Your task to perform on an android device: delete browsing data in the chrome app Image 0: 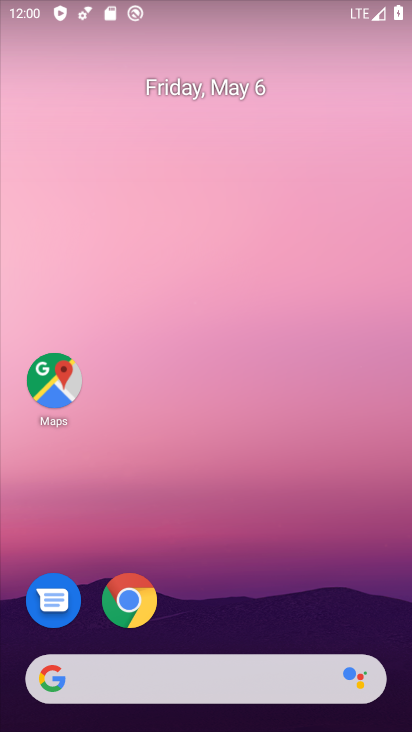
Step 0: drag from (298, 615) to (311, 280)
Your task to perform on an android device: delete browsing data in the chrome app Image 1: 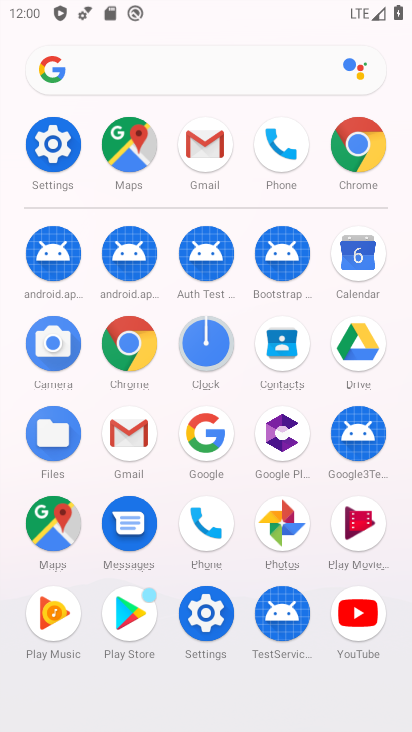
Step 1: click (374, 163)
Your task to perform on an android device: delete browsing data in the chrome app Image 2: 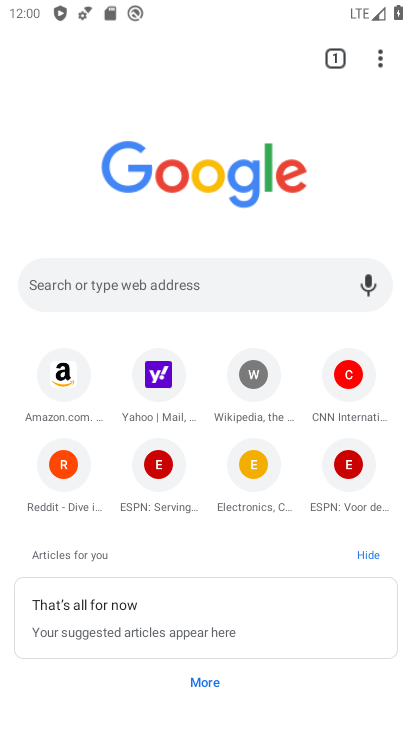
Step 2: click (381, 54)
Your task to perform on an android device: delete browsing data in the chrome app Image 3: 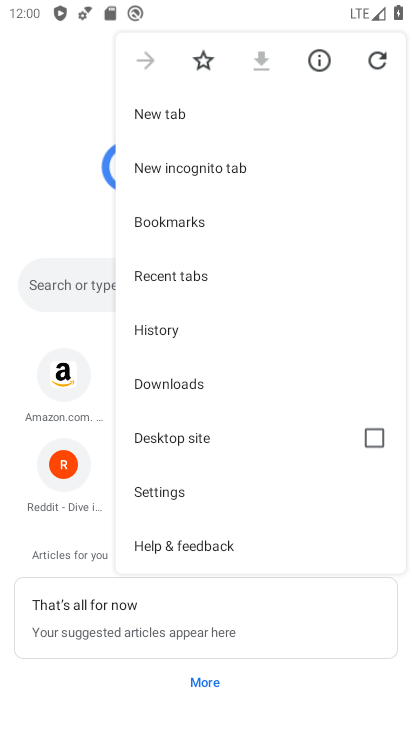
Step 3: click (157, 335)
Your task to perform on an android device: delete browsing data in the chrome app Image 4: 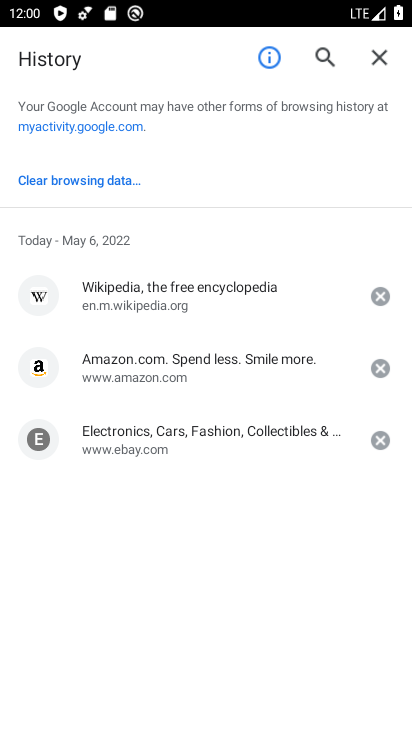
Step 4: click (54, 188)
Your task to perform on an android device: delete browsing data in the chrome app Image 5: 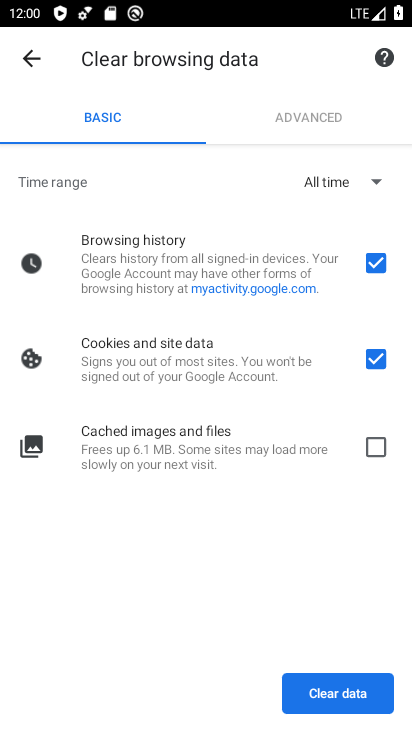
Step 5: click (347, 697)
Your task to perform on an android device: delete browsing data in the chrome app Image 6: 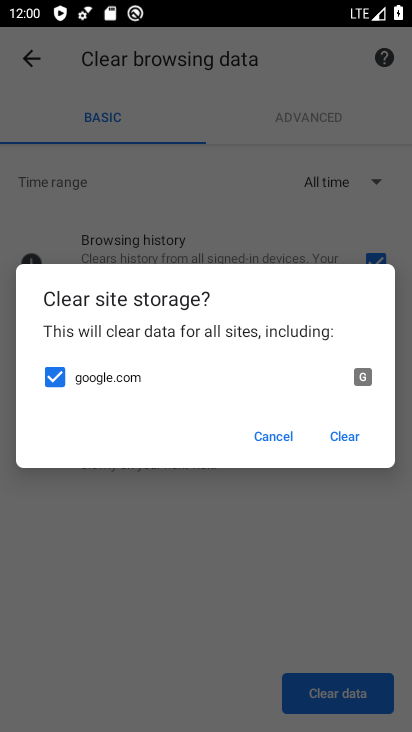
Step 6: click (337, 430)
Your task to perform on an android device: delete browsing data in the chrome app Image 7: 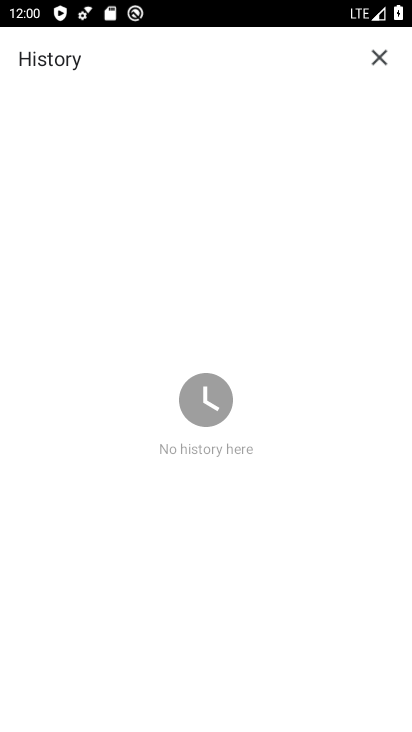
Step 7: task complete